Your task to perform on an android device: Play the last video I watched on Youtube Image 0: 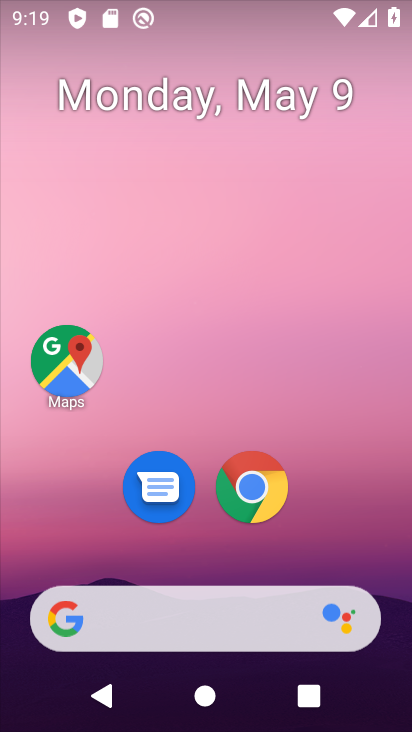
Step 0: press home button
Your task to perform on an android device: Play the last video I watched on Youtube Image 1: 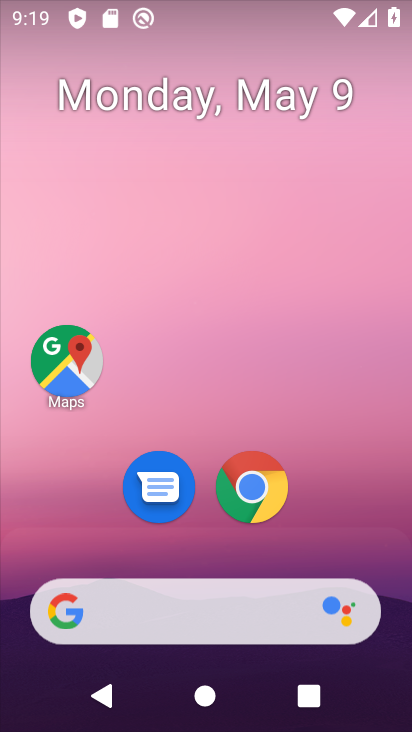
Step 1: drag from (74, 473) to (353, 109)
Your task to perform on an android device: Play the last video I watched on Youtube Image 2: 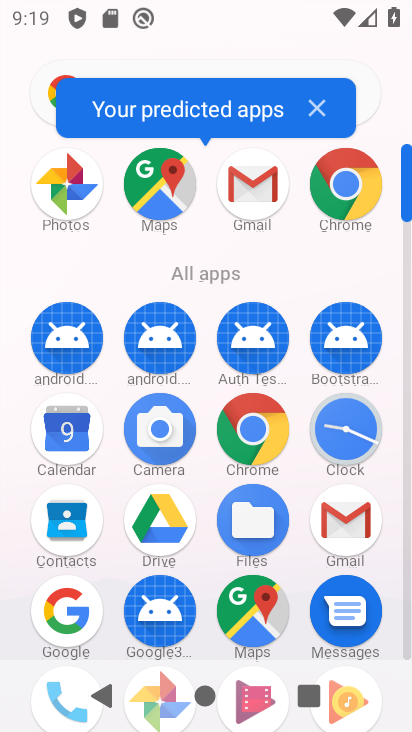
Step 2: drag from (20, 601) to (280, 152)
Your task to perform on an android device: Play the last video I watched on Youtube Image 3: 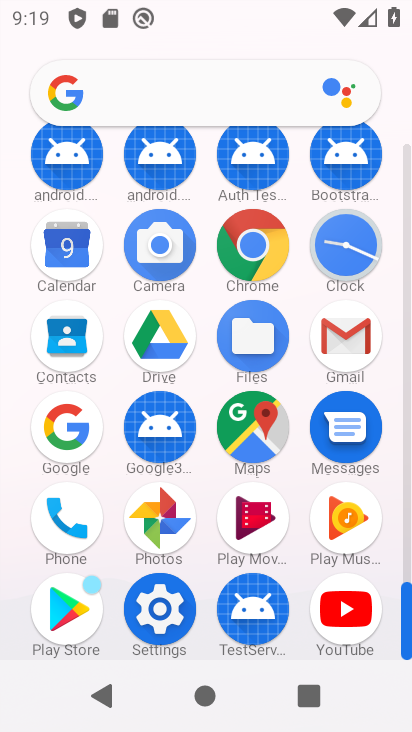
Step 3: click (346, 620)
Your task to perform on an android device: Play the last video I watched on Youtube Image 4: 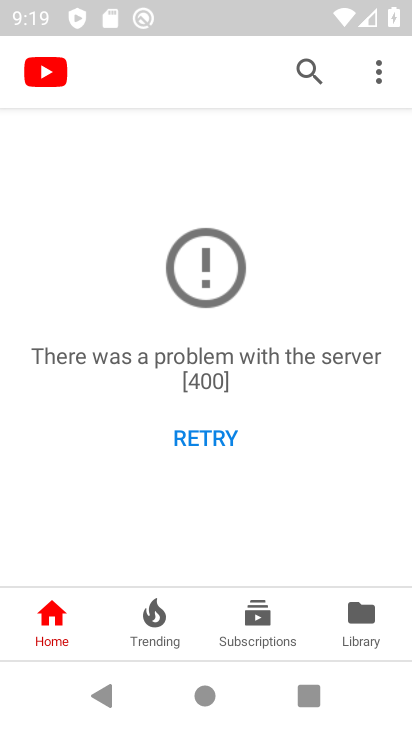
Step 4: task complete